Your task to perform on an android device: allow cookies in the chrome app Image 0: 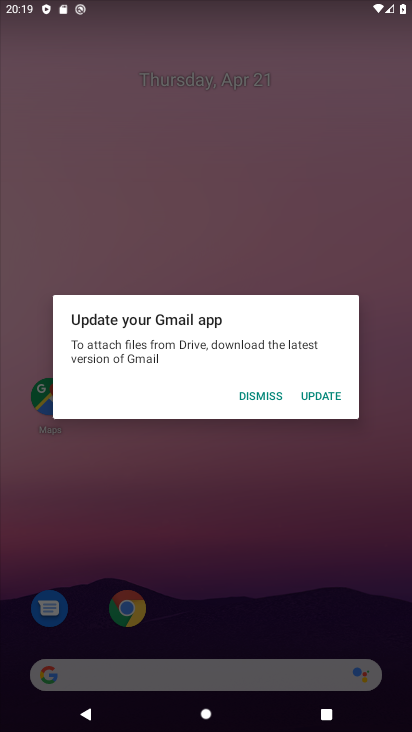
Step 0: press home button
Your task to perform on an android device: allow cookies in the chrome app Image 1: 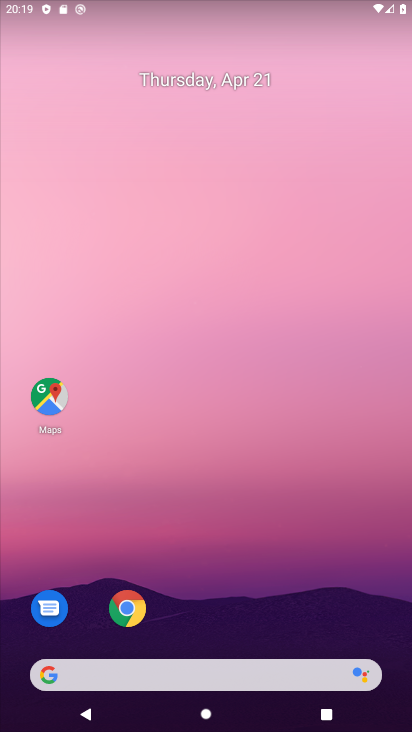
Step 1: click (127, 609)
Your task to perform on an android device: allow cookies in the chrome app Image 2: 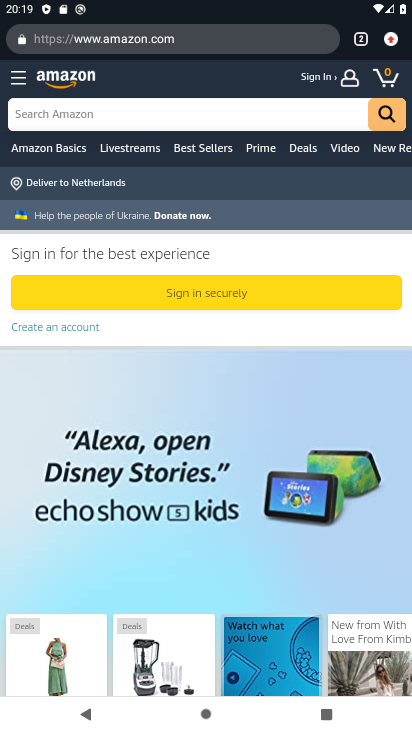
Step 2: click (397, 50)
Your task to perform on an android device: allow cookies in the chrome app Image 3: 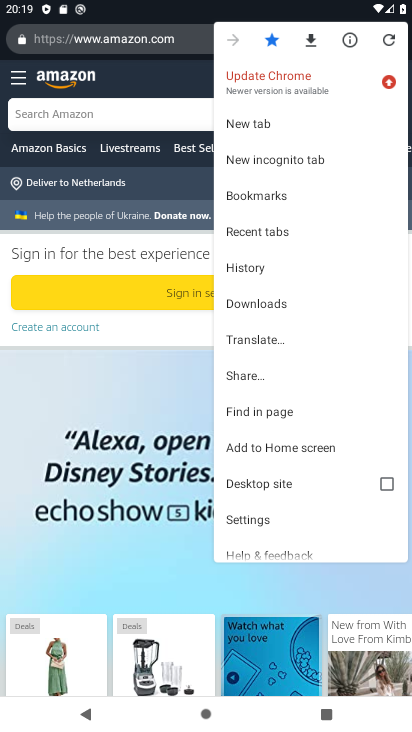
Step 3: click (250, 528)
Your task to perform on an android device: allow cookies in the chrome app Image 4: 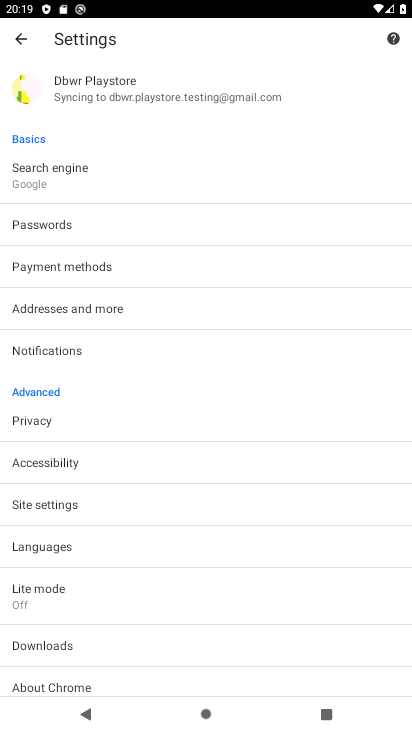
Step 4: click (202, 510)
Your task to perform on an android device: allow cookies in the chrome app Image 5: 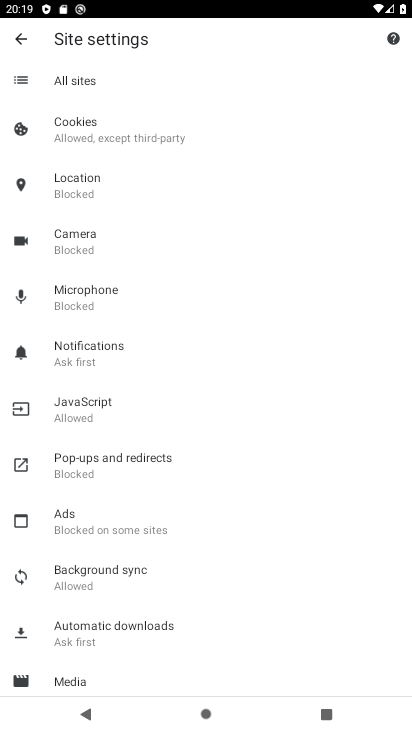
Step 5: click (156, 131)
Your task to perform on an android device: allow cookies in the chrome app Image 6: 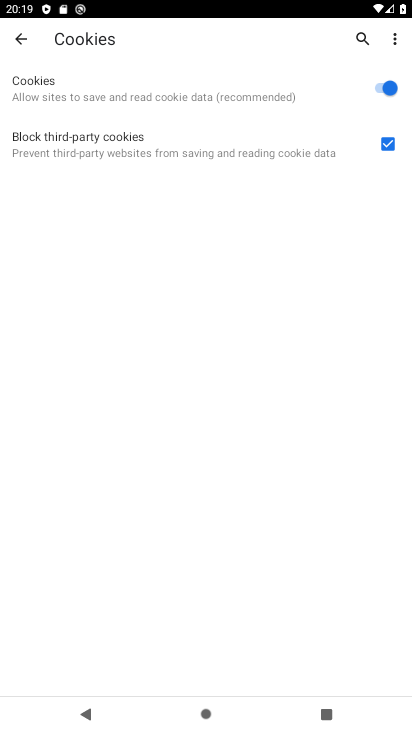
Step 6: task complete